Your task to perform on an android device: Open Youtube and go to "Your channel" Image 0: 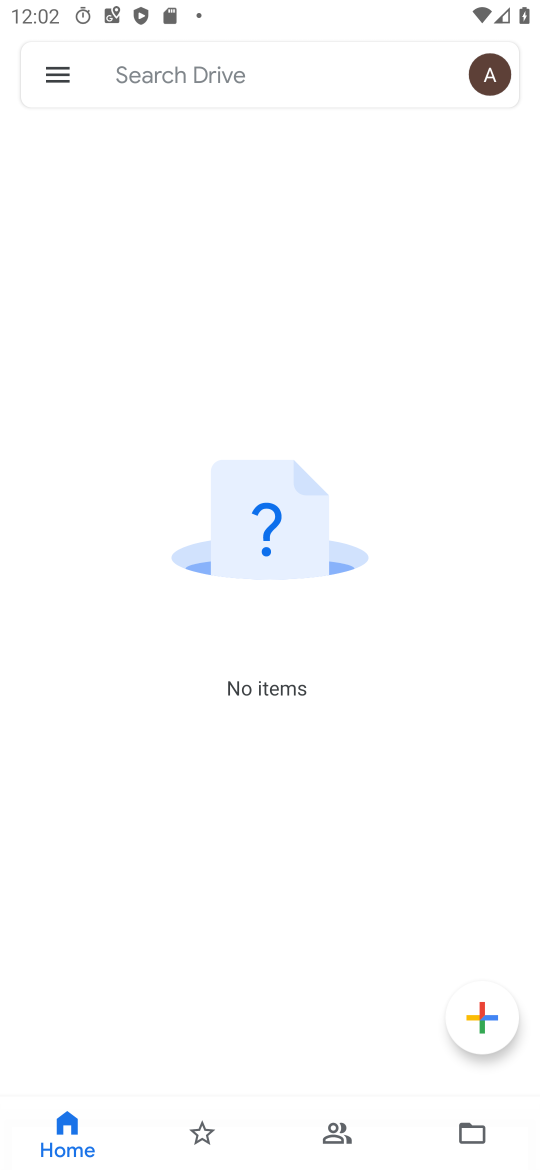
Step 0: press back button
Your task to perform on an android device: Open Youtube and go to "Your channel" Image 1: 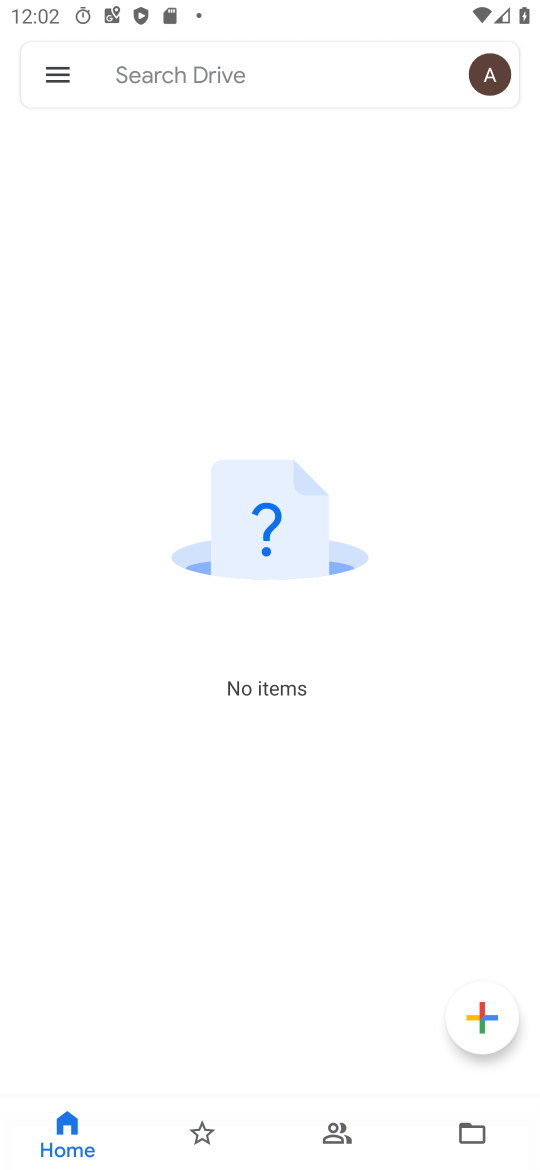
Step 1: press back button
Your task to perform on an android device: Open Youtube and go to "Your channel" Image 2: 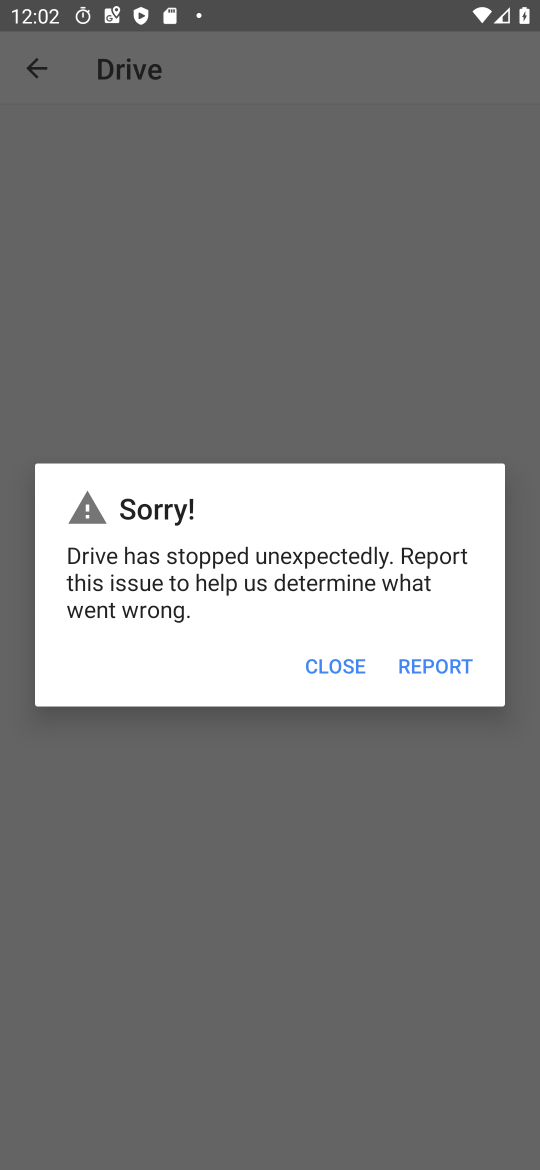
Step 2: click (317, 661)
Your task to perform on an android device: Open Youtube and go to "Your channel" Image 3: 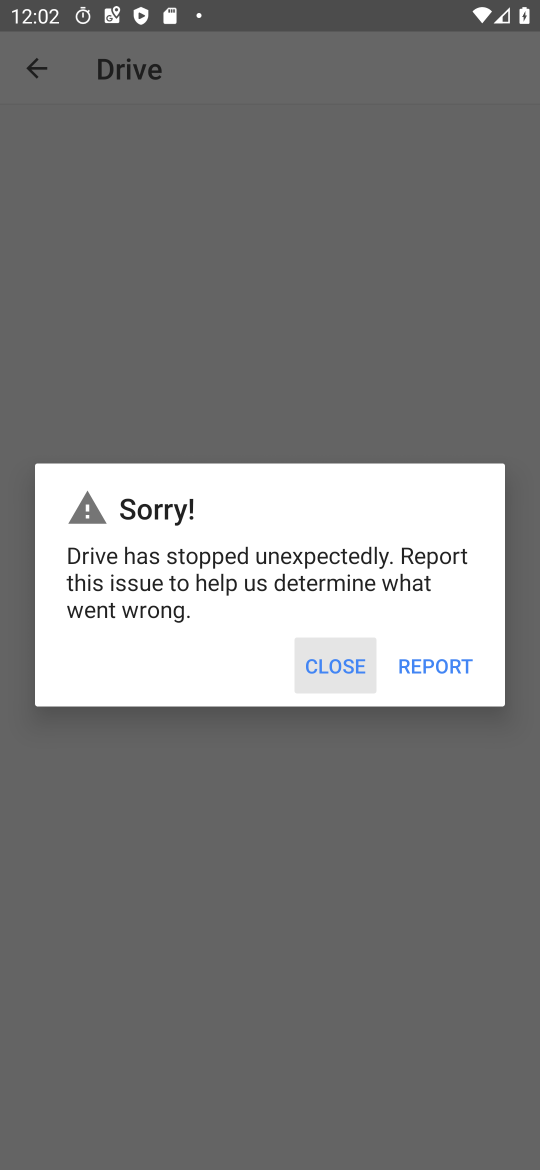
Step 3: click (327, 660)
Your task to perform on an android device: Open Youtube and go to "Your channel" Image 4: 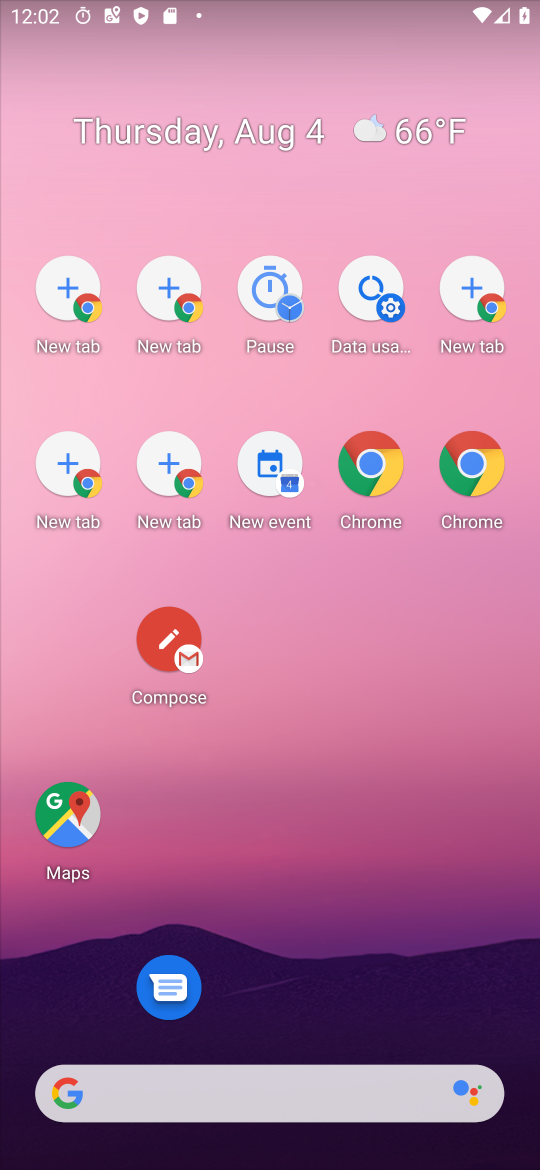
Step 4: drag from (348, 770) to (232, 135)
Your task to perform on an android device: Open Youtube and go to "Your channel" Image 5: 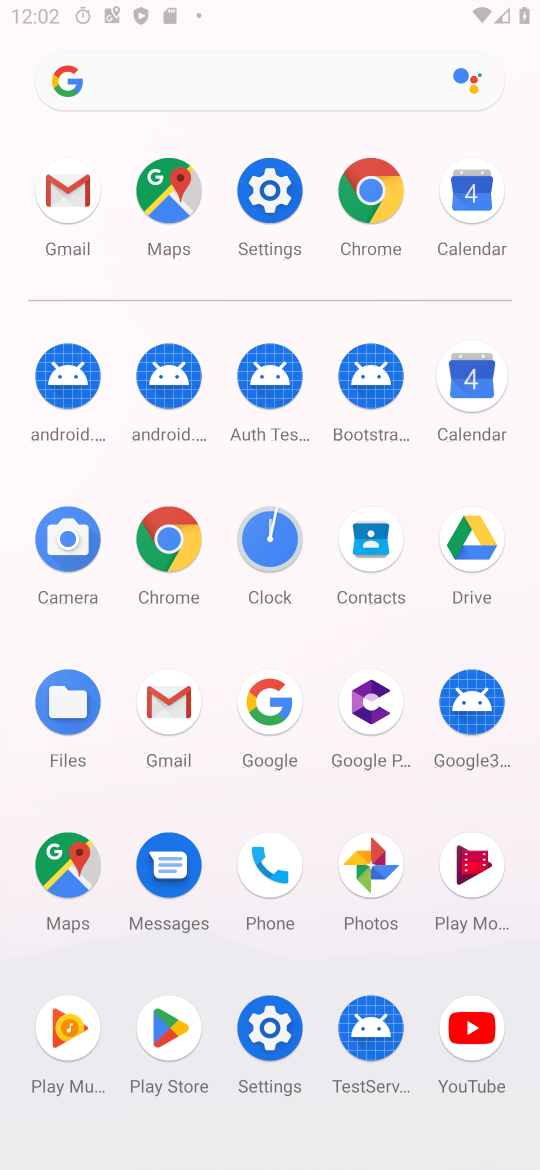
Step 5: drag from (332, 870) to (313, 428)
Your task to perform on an android device: Open Youtube and go to "Your channel" Image 6: 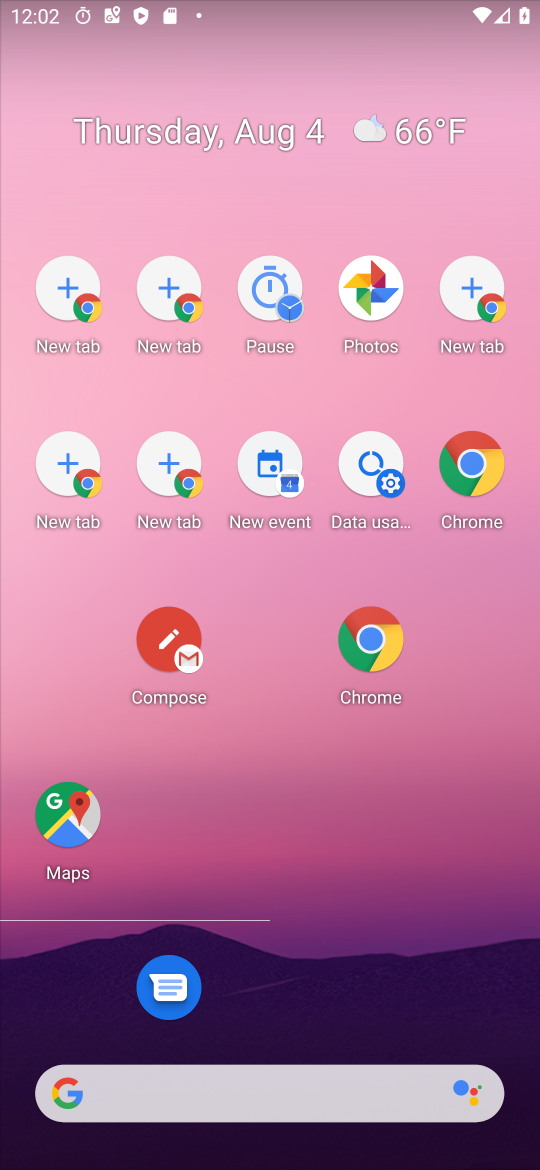
Step 6: drag from (417, 945) to (383, 460)
Your task to perform on an android device: Open Youtube and go to "Your channel" Image 7: 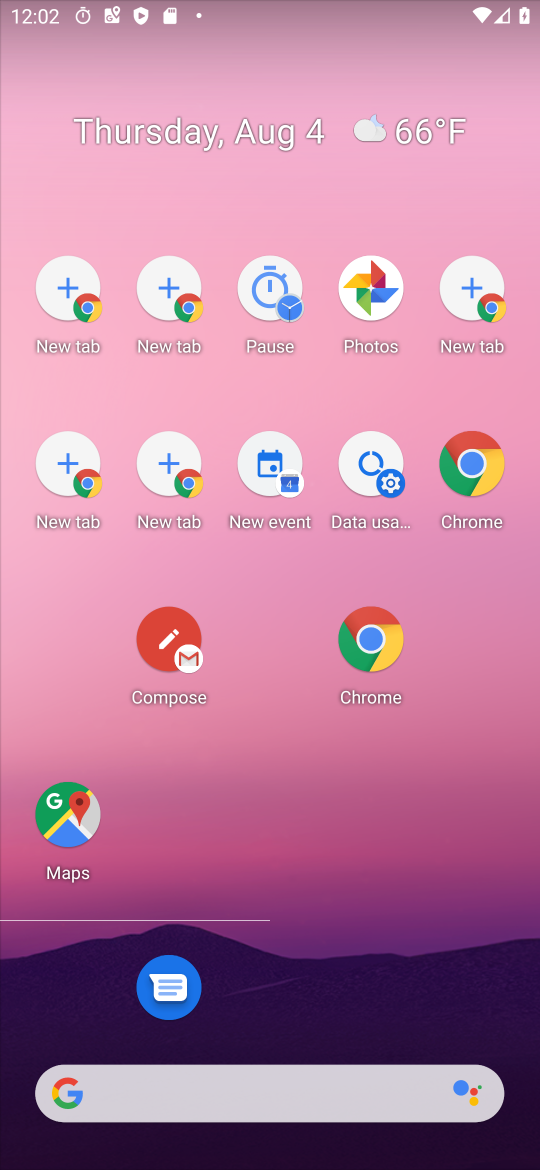
Step 7: drag from (381, 771) to (386, 253)
Your task to perform on an android device: Open Youtube and go to "Your channel" Image 8: 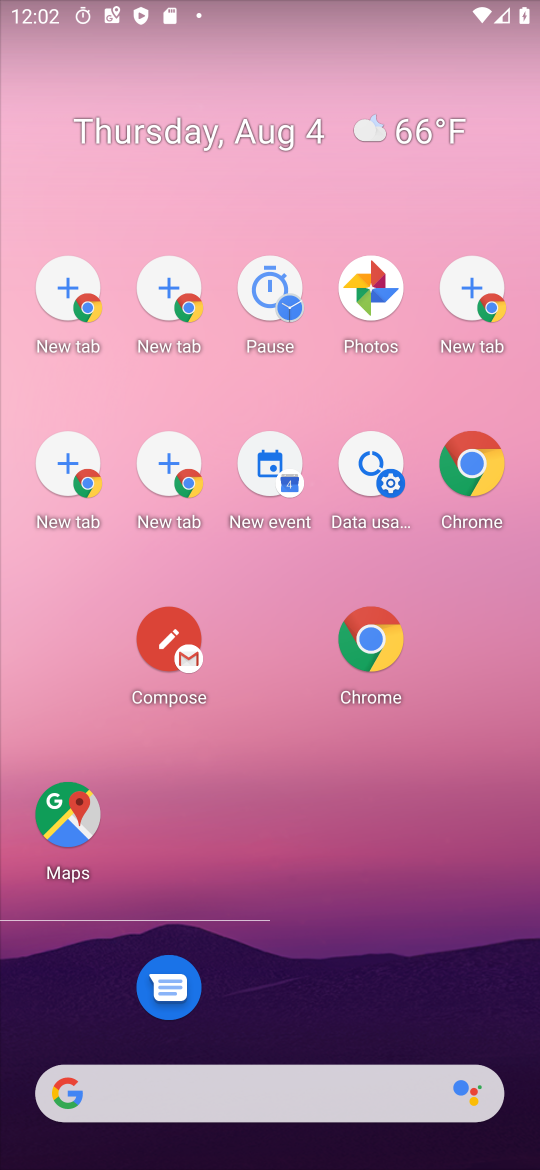
Step 8: drag from (373, 748) to (321, 312)
Your task to perform on an android device: Open Youtube and go to "Your channel" Image 9: 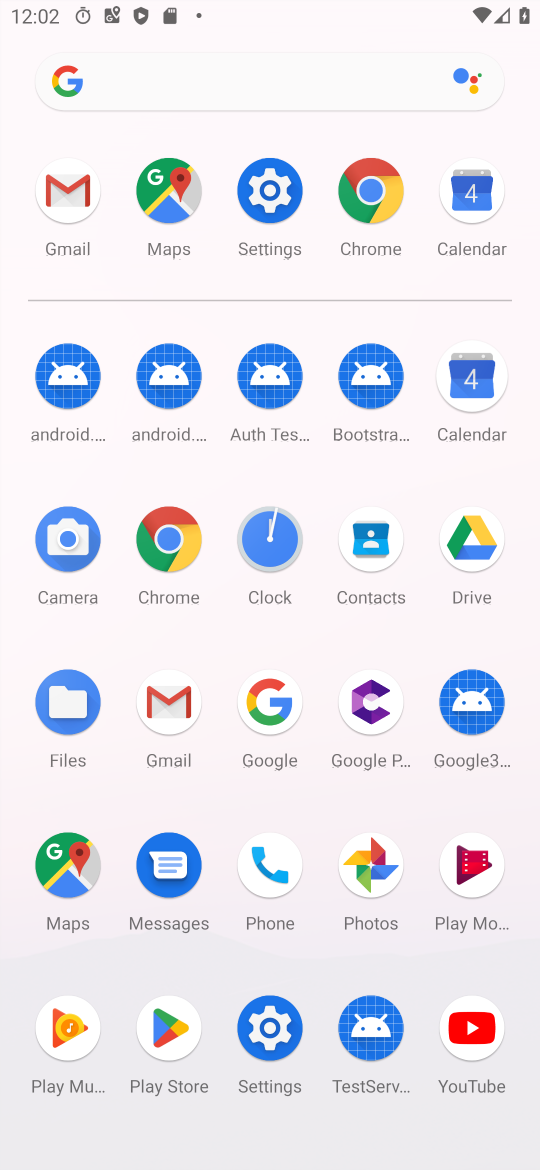
Step 9: drag from (384, 1102) to (366, 973)
Your task to perform on an android device: Open Youtube and go to "Your channel" Image 10: 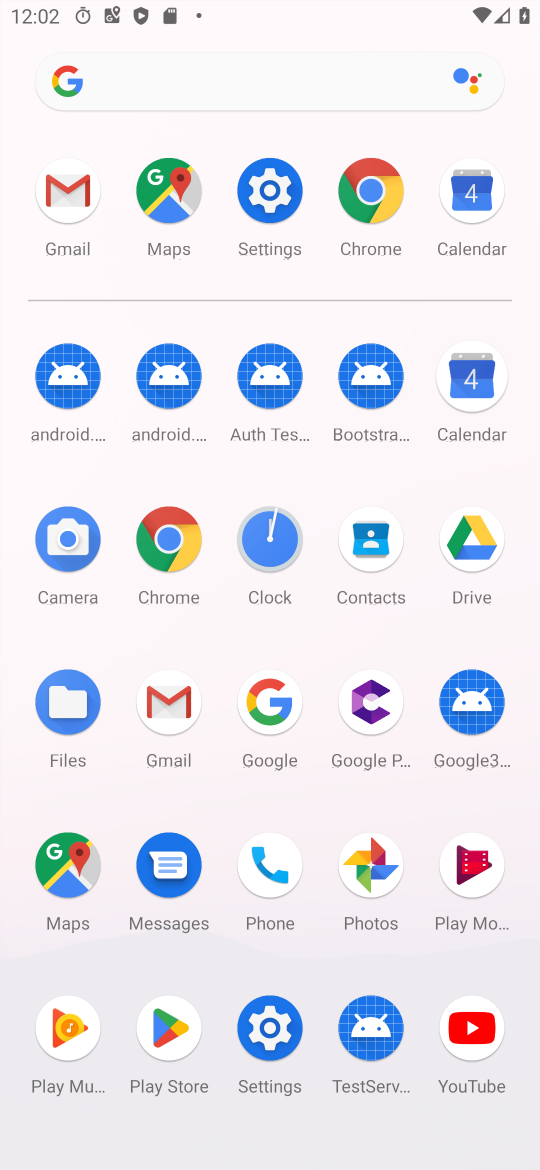
Step 10: click (470, 1038)
Your task to perform on an android device: Open Youtube and go to "Your channel" Image 11: 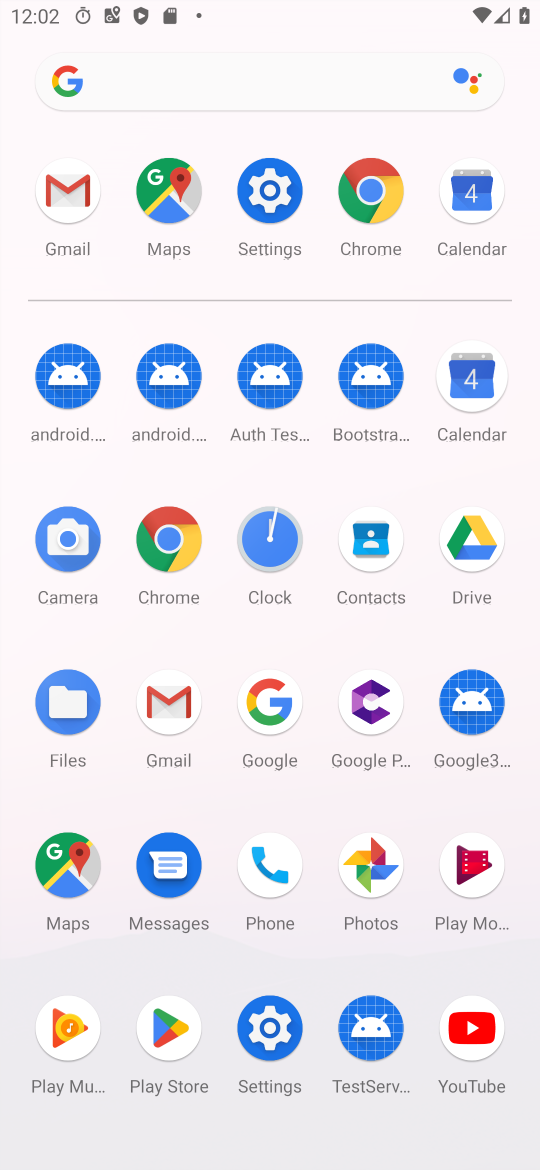
Step 11: click (470, 1038)
Your task to perform on an android device: Open Youtube and go to "Your channel" Image 12: 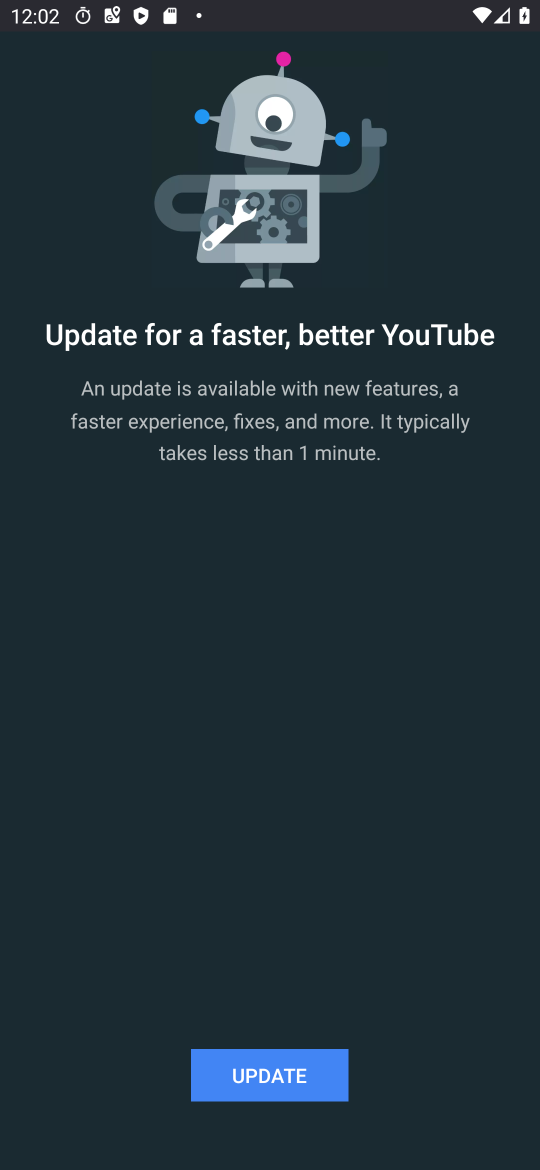
Step 12: click (472, 1039)
Your task to perform on an android device: Open Youtube and go to "Your channel" Image 13: 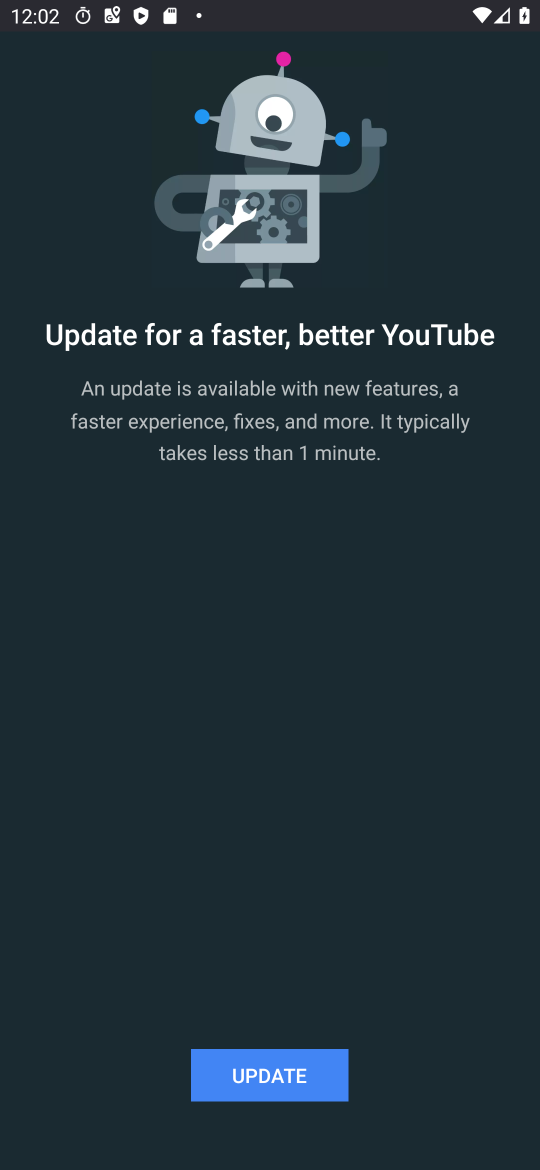
Step 13: click (263, 1065)
Your task to perform on an android device: Open Youtube and go to "Your channel" Image 14: 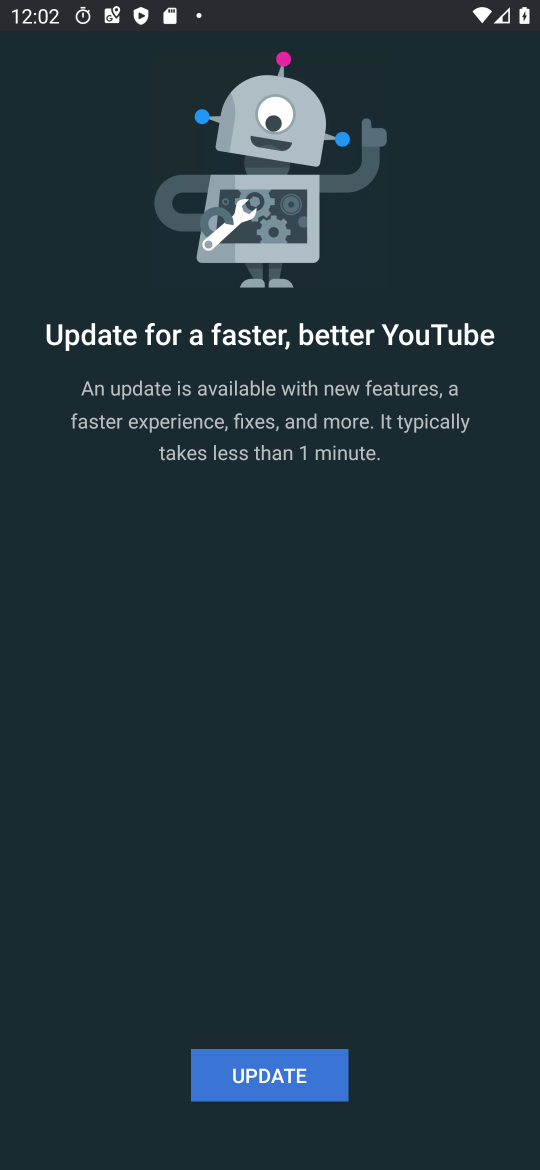
Step 14: click (268, 1065)
Your task to perform on an android device: Open Youtube and go to "Your channel" Image 15: 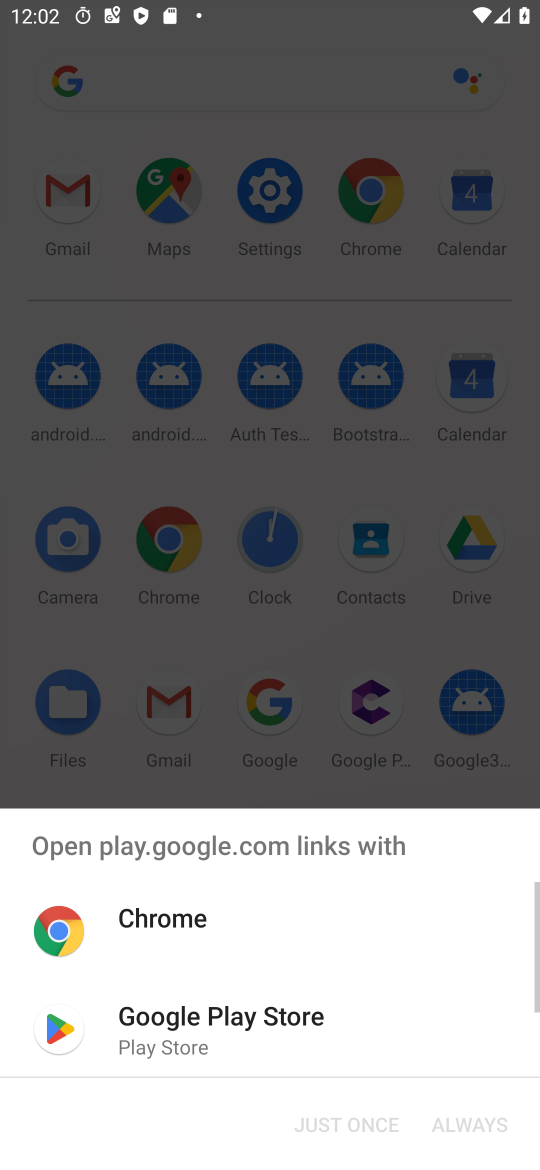
Step 15: click (175, 920)
Your task to perform on an android device: Open Youtube and go to "Your channel" Image 16: 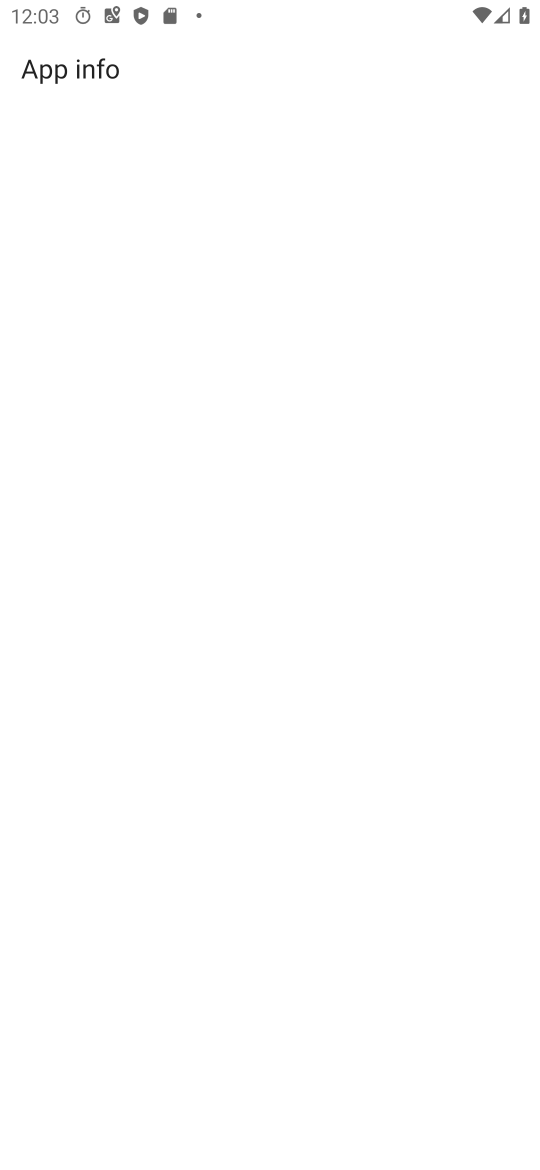
Step 16: click (175, 920)
Your task to perform on an android device: Open Youtube and go to "Your channel" Image 17: 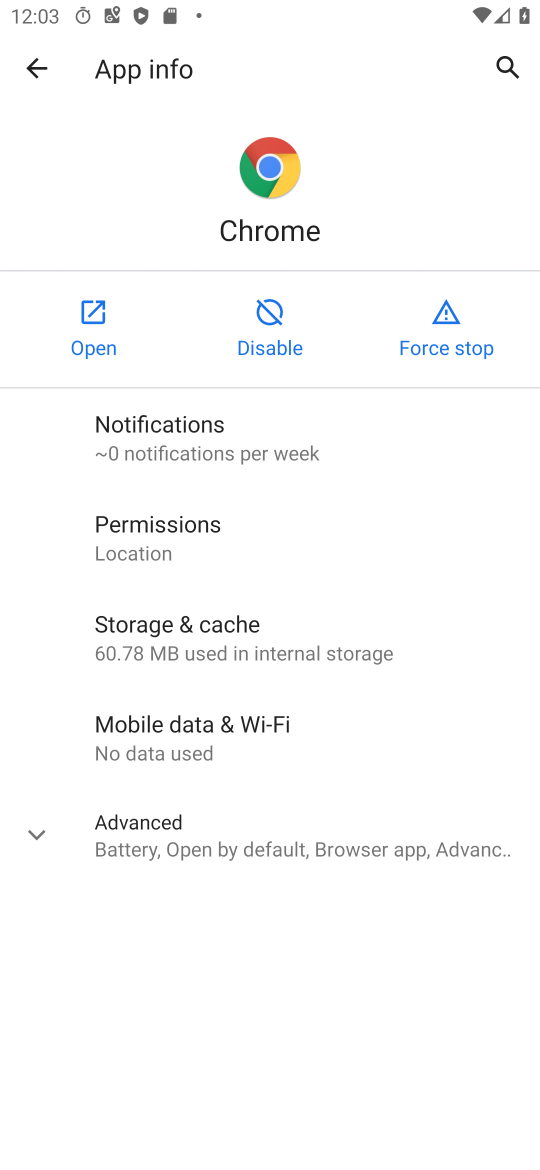
Step 17: click (20, 63)
Your task to perform on an android device: Open Youtube and go to "Your channel" Image 18: 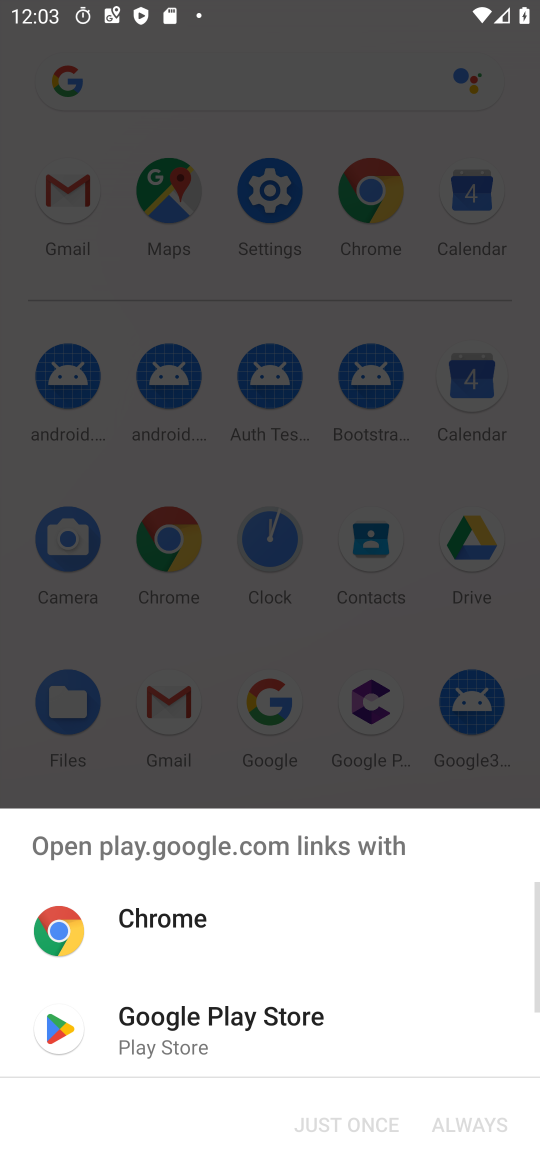
Step 18: click (205, 1020)
Your task to perform on an android device: Open Youtube and go to "Your channel" Image 19: 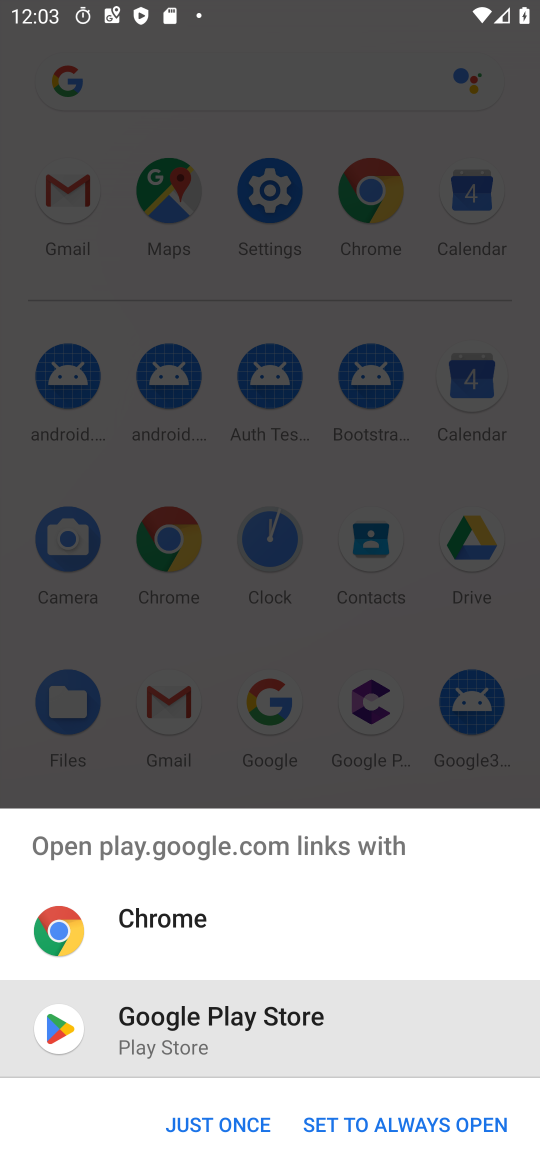
Step 19: click (236, 1142)
Your task to perform on an android device: Open Youtube and go to "Your channel" Image 20: 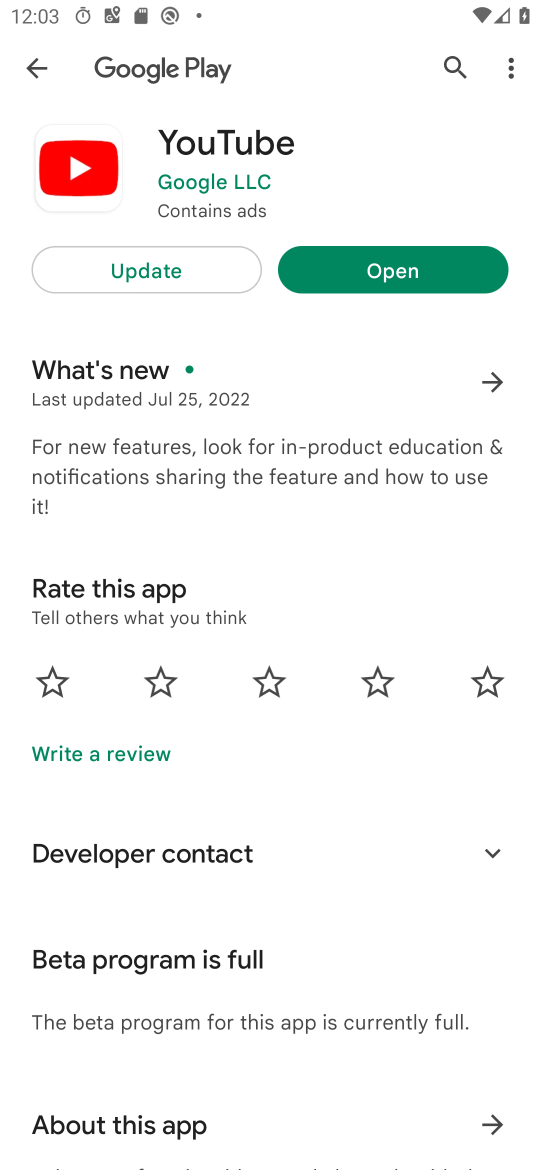
Step 20: click (224, 269)
Your task to perform on an android device: Open Youtube and go to "Your channel" Image 21: 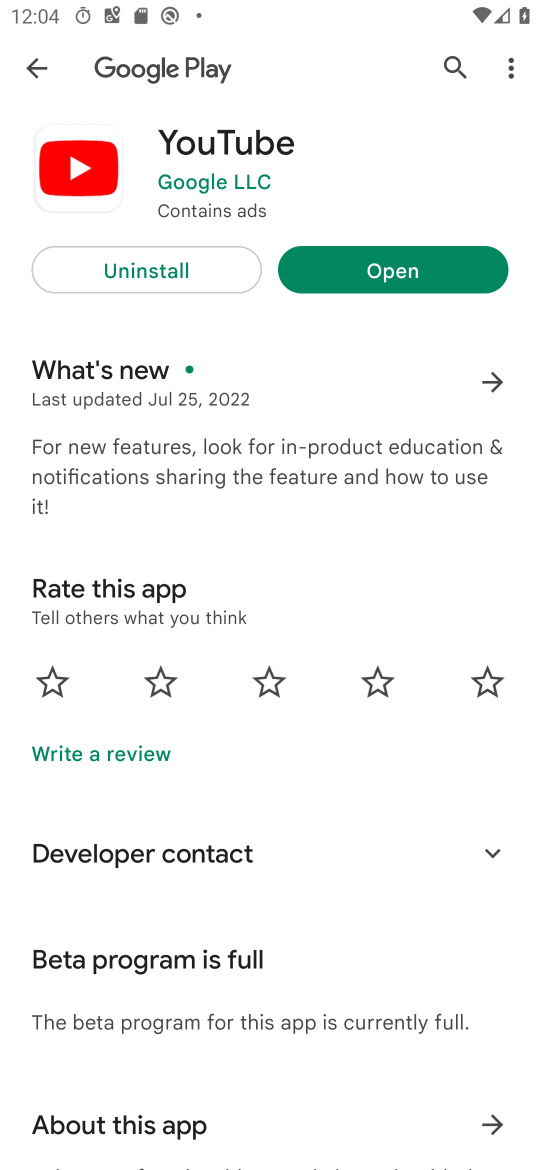
Step 21: click (369, 251)
Your task to perform on an android device: Open Youtube and go to "Your channel" Image 22: 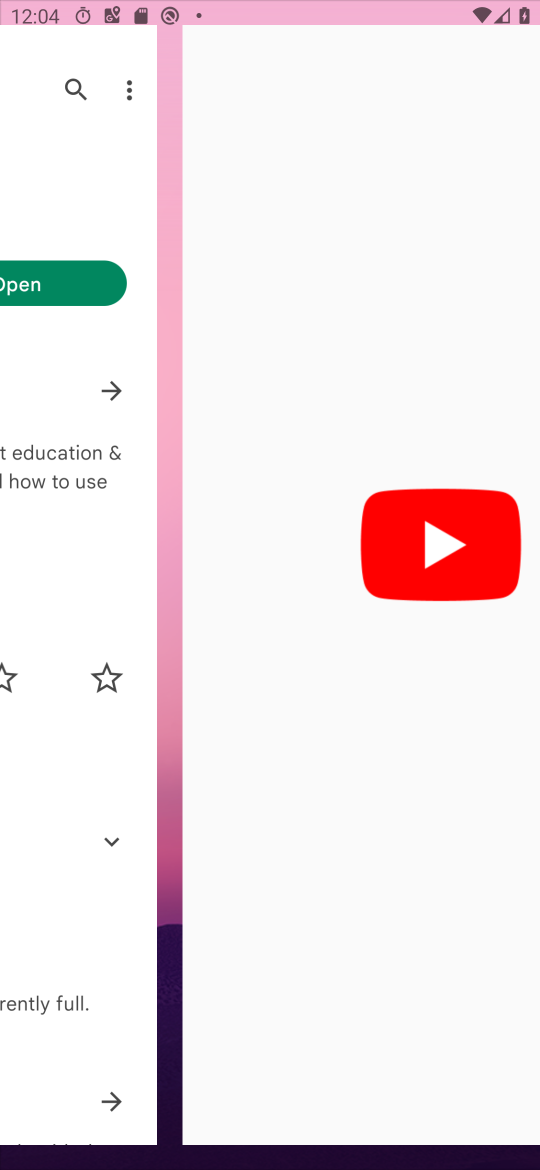
Step 22: click (375, 263)
Your task to perform on an android device: Open Youtube and go to "Your channel" Image 23: 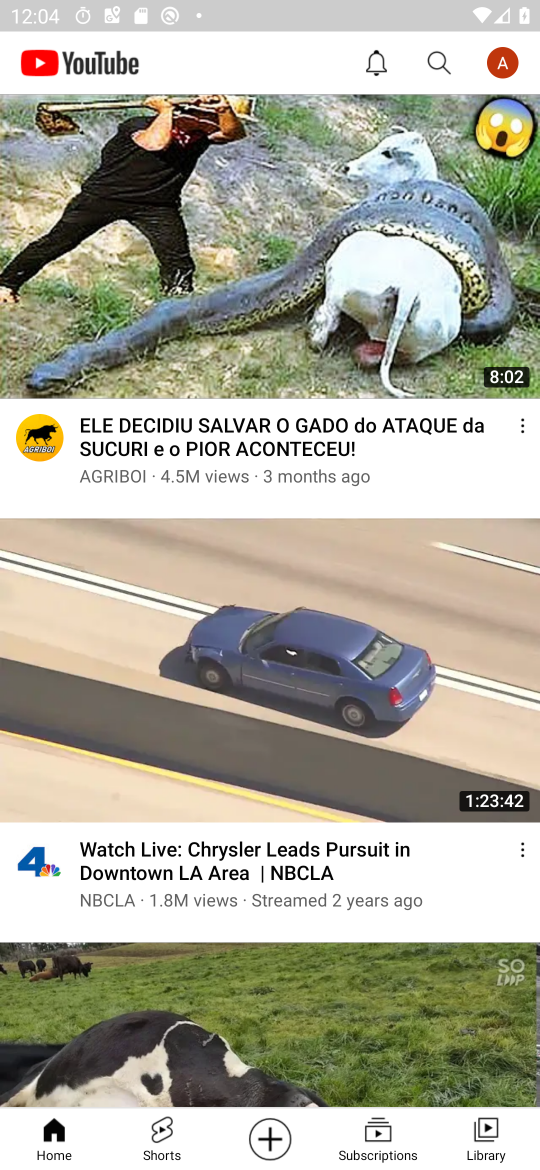
Step 23: task complete